Your task to perform on an android device: open app "Mercado Libre" (install if not already installed) and go to login screen Image 0: 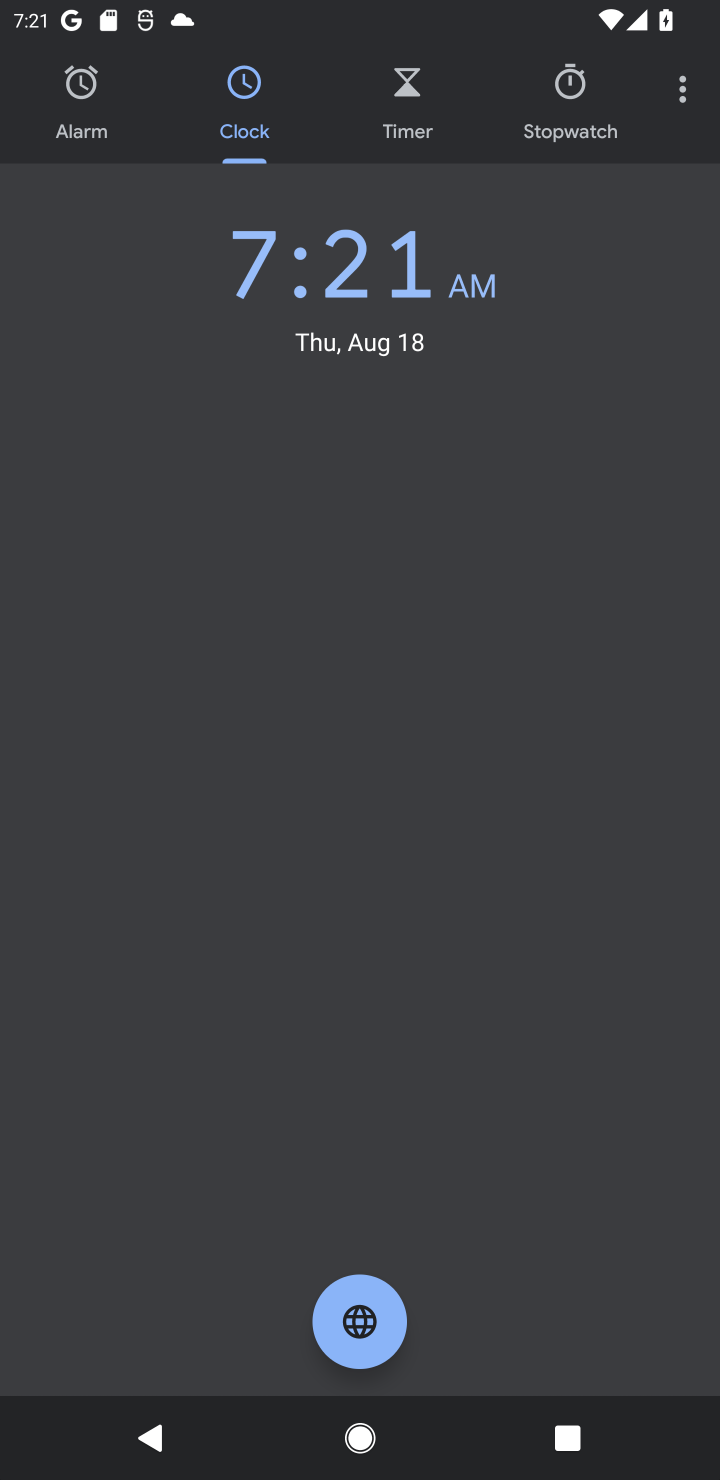
Step 0: press home button
Your task to perform on an android device: open app "Mercado Libre" (install if not already installed) and go to login screen Image 1: 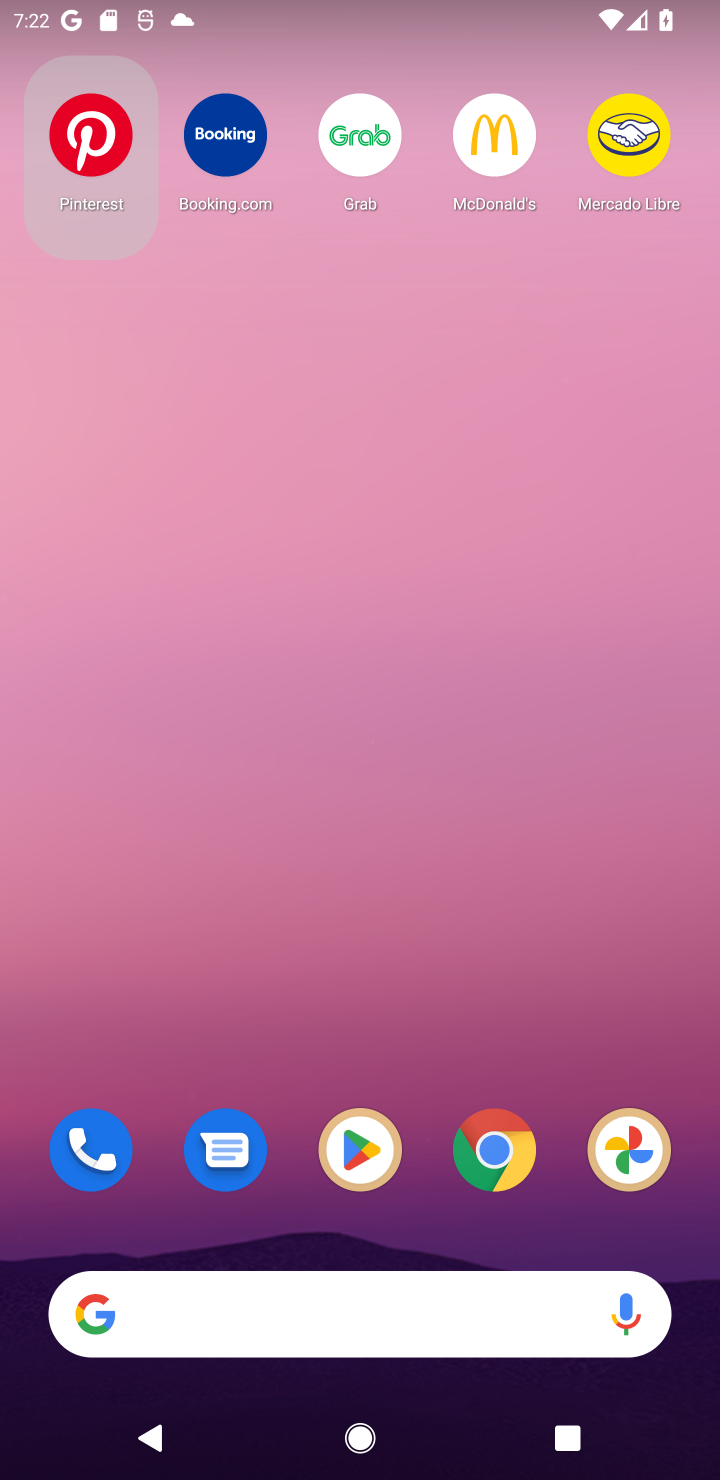
Step 1: press home button
Your task to perform on an android device: open app "Mercado Libre" (install if not already installed) and go to login screen Image 2: 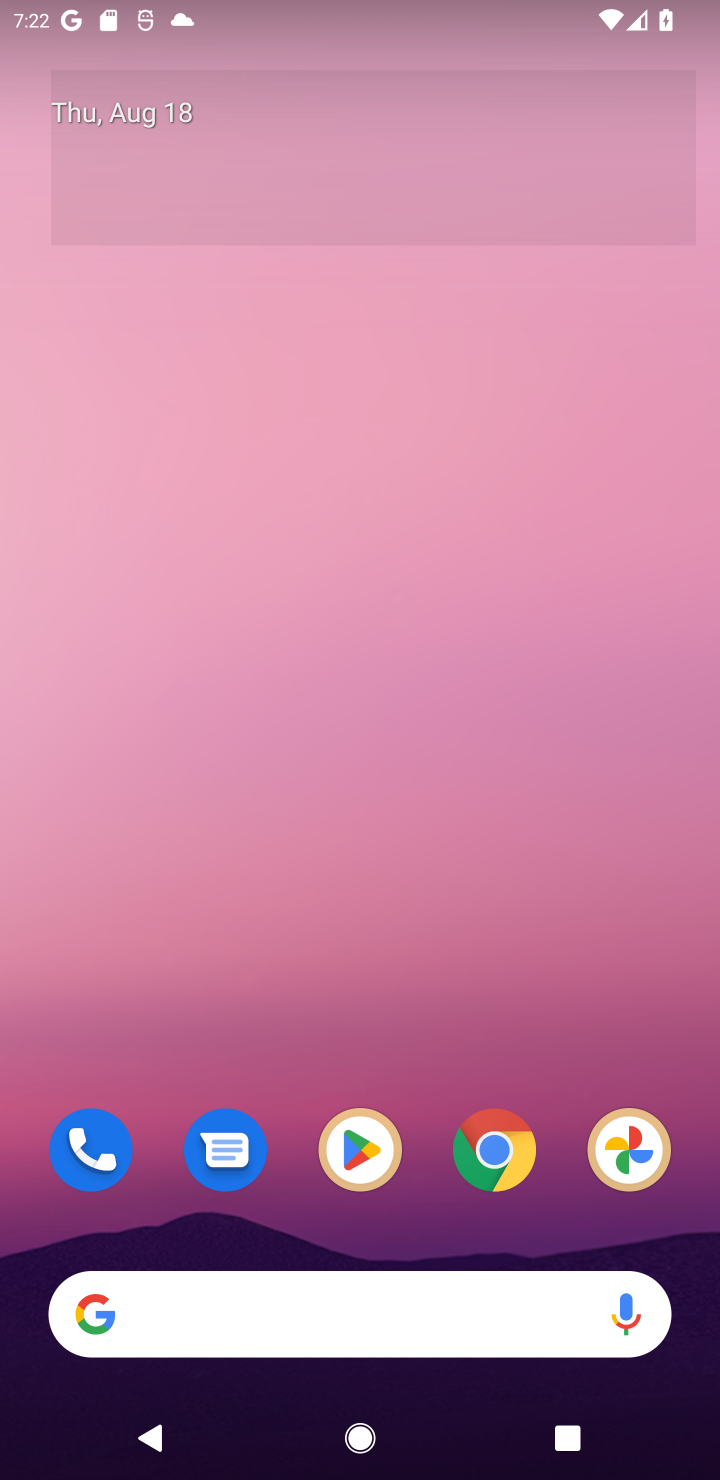
Step 2: click (377, 1138)
Your task to perform on an android device: open app "Mercado Libre" (install if not already installed) and go to login screen Image 3: 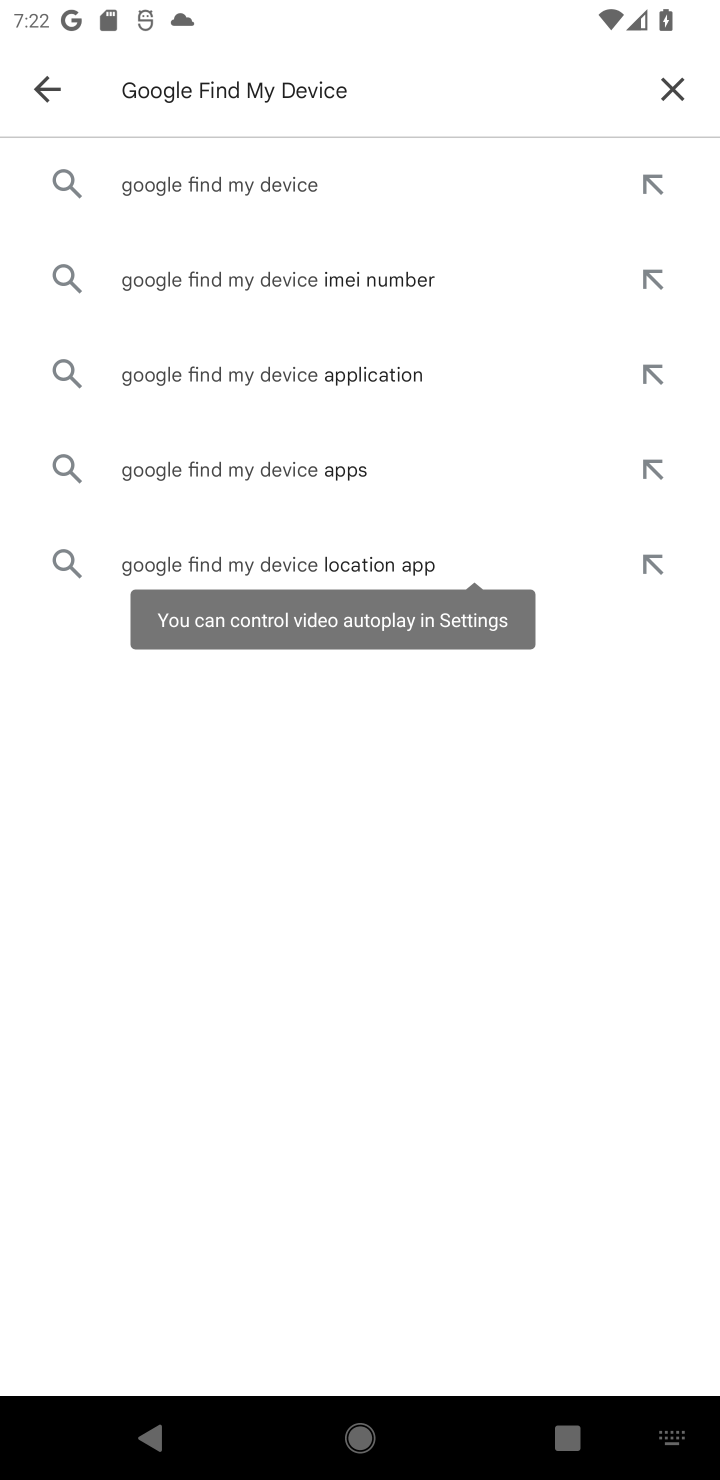
Step 3: click (377, 1138)
Your task to perform on an android device: open app "Mercado Libre" (install if not already installed) and go to login screen Image 4: 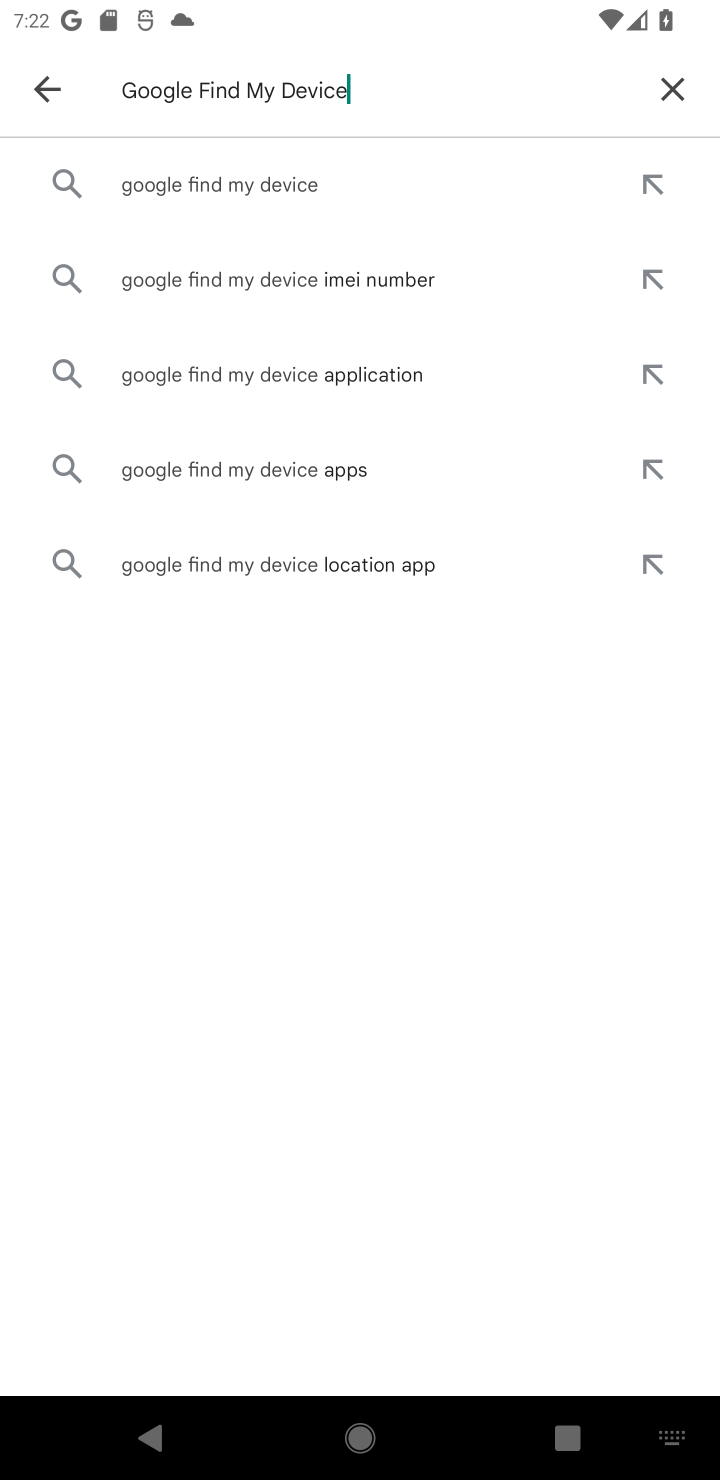
Step 4: click (58, 89)
Your task to perform on an android device: open app "Mercado Libre" (install if not already installed) and go to login screen Image 5: 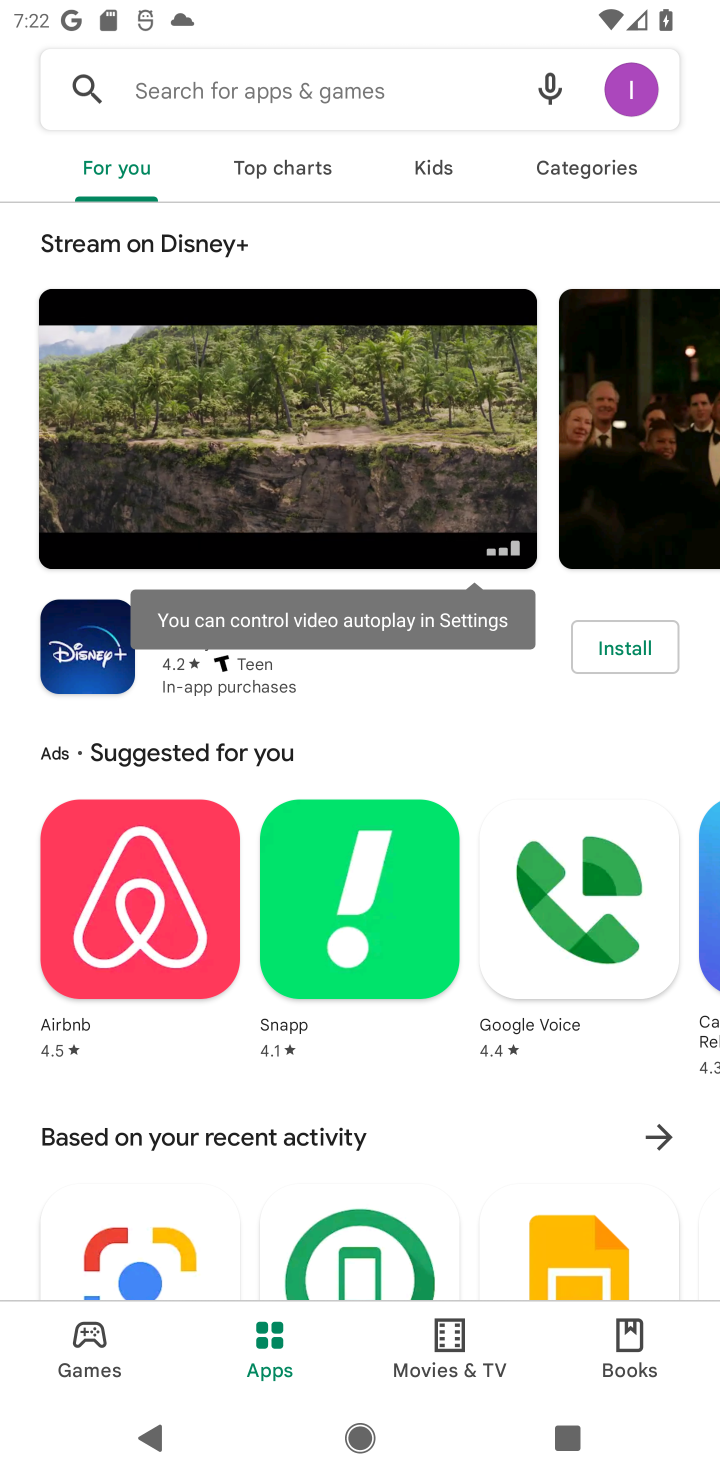
Step 5: click (225, 100)
Your task to perform on an android device: open app "Mercado Libre" (install if not already installed) and go to login screen Image 6: 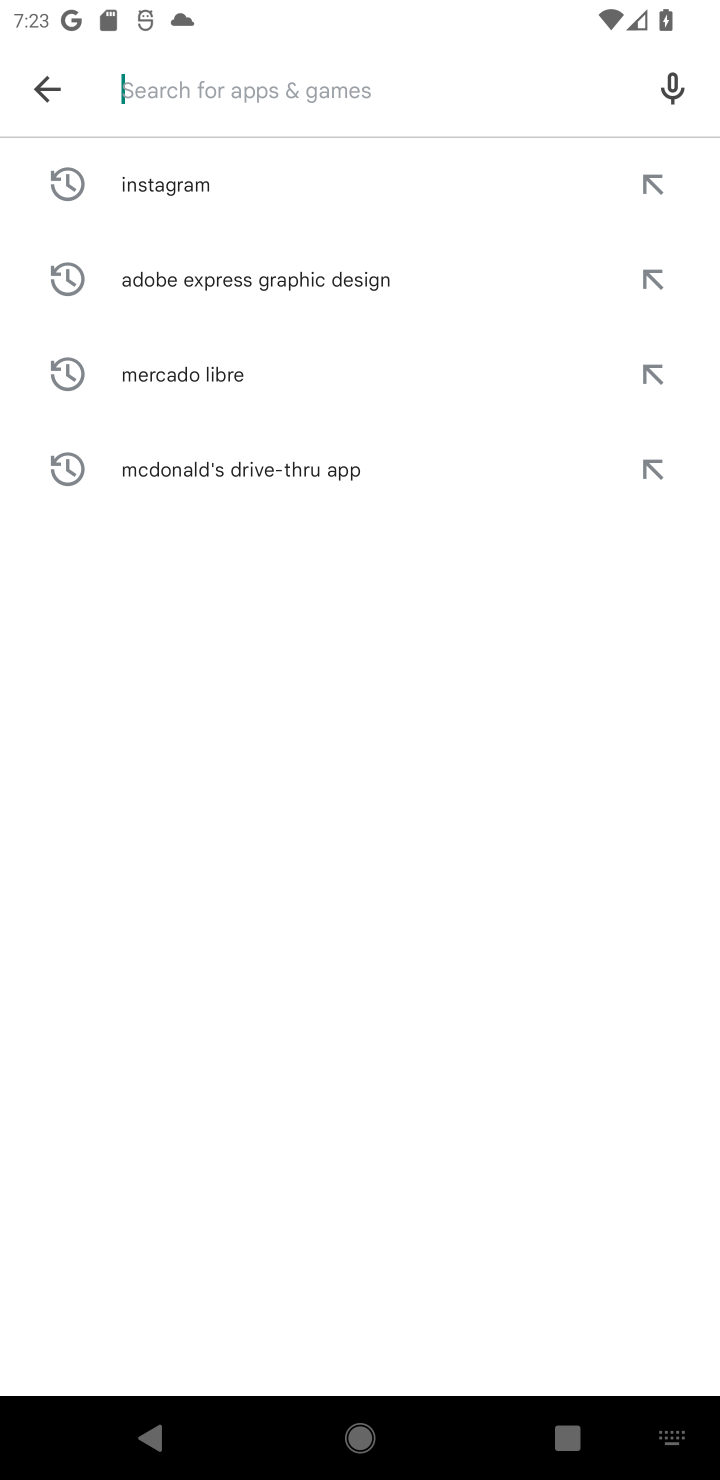
Step 6: type "Mercado"
Your task to perform on an android device: open app "Mercado Libre" (install if not already installed) and go to login screen Image 7: 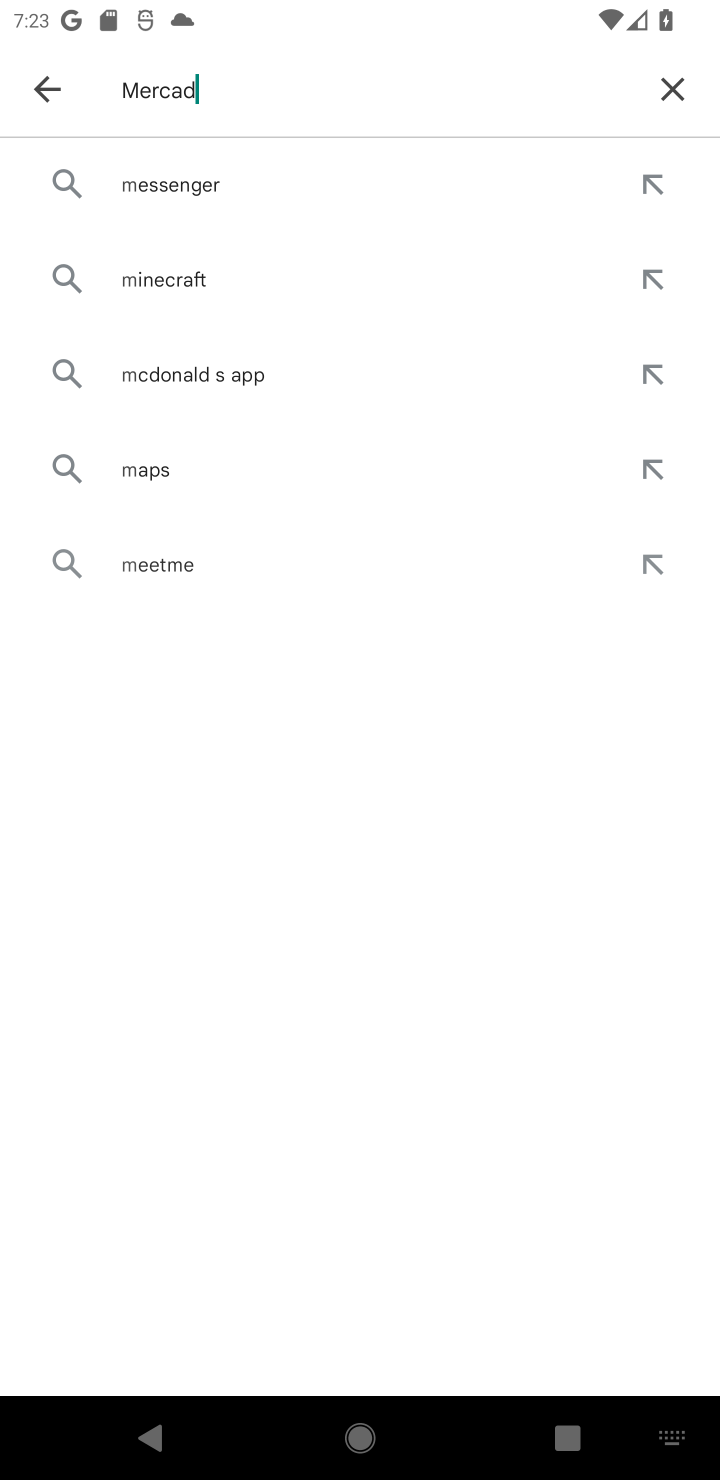
Step 7: type ""
Your task to perform on an android device: open app "Mercado Libre" (install if not already installed) and go to login screen Image 8: 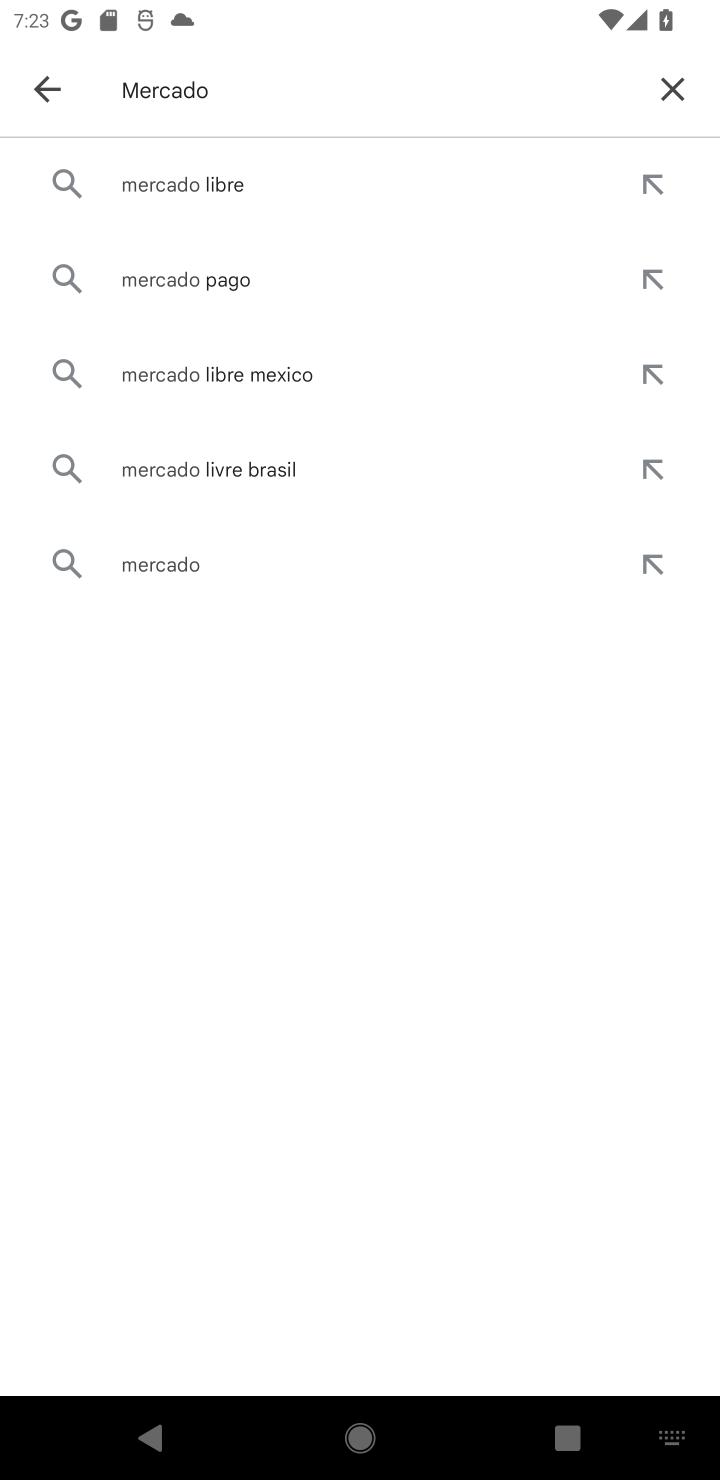
Step 8: click (273, 197)
Your task to perform on an android device: open app "Mercado Libre" (install if not already installed) and go to login screen Image 9: 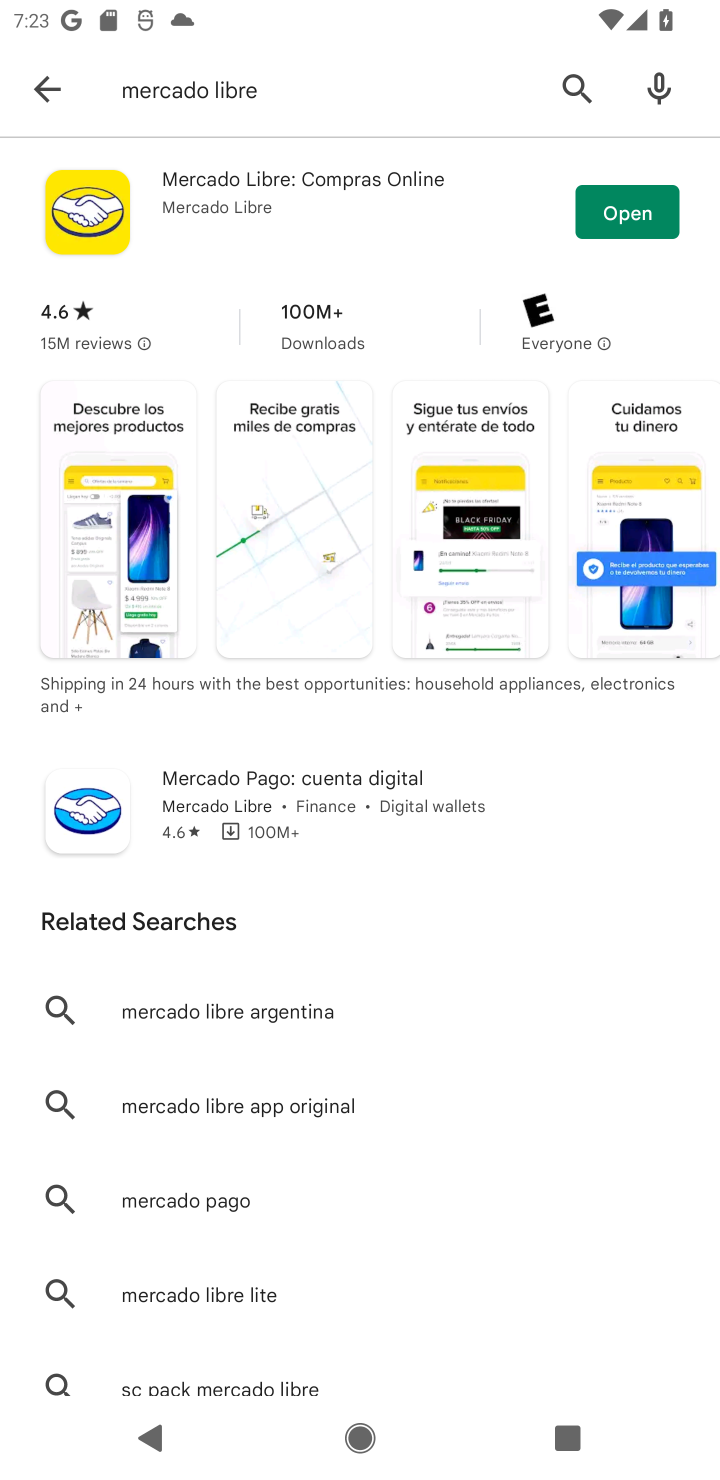
Step 9: click (415, 225)
Your task to perform on an android device: open app "Mercado Libre" (install if not already installed) and go to login screen Image 10: 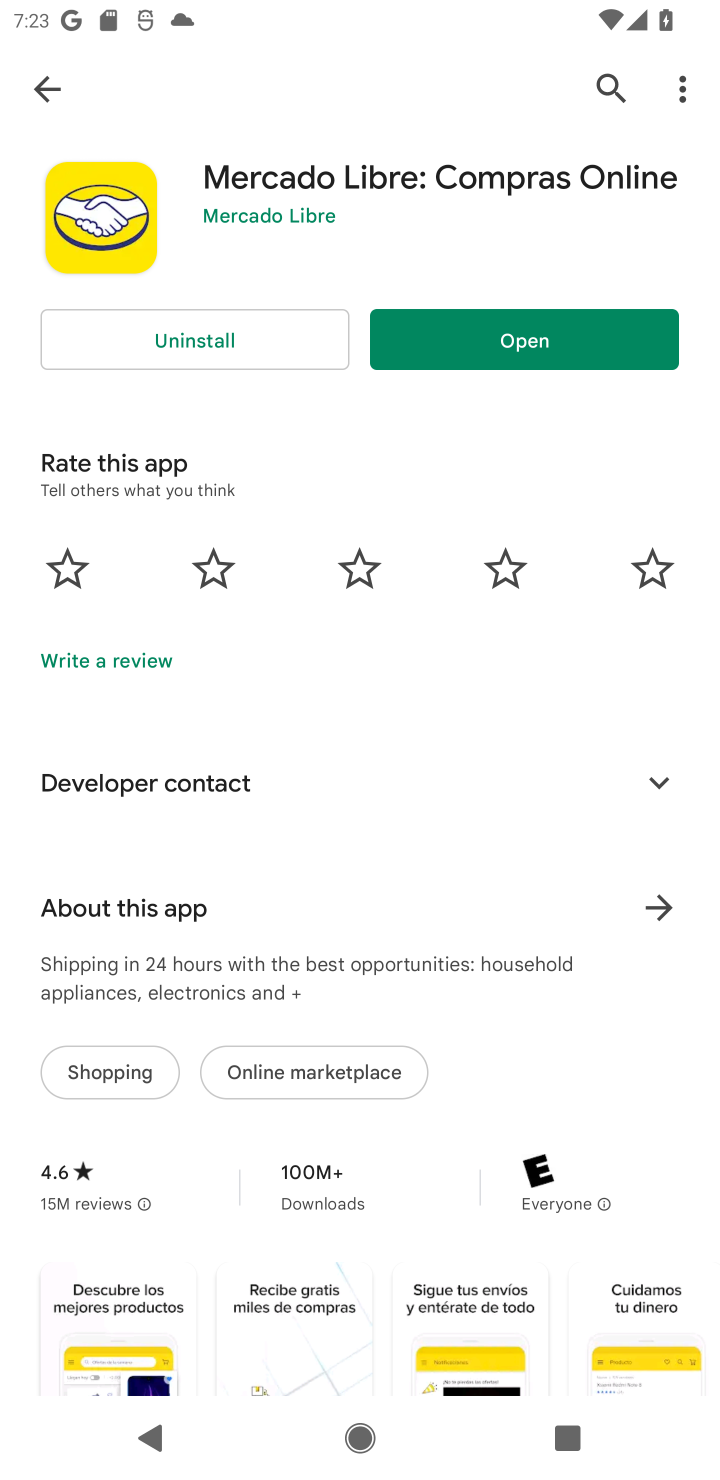
Step 10: click (496, 342)
Your task to perform on an android device: open app "Mercado Libre" (install if not already installed) and go to login screen Image 11: 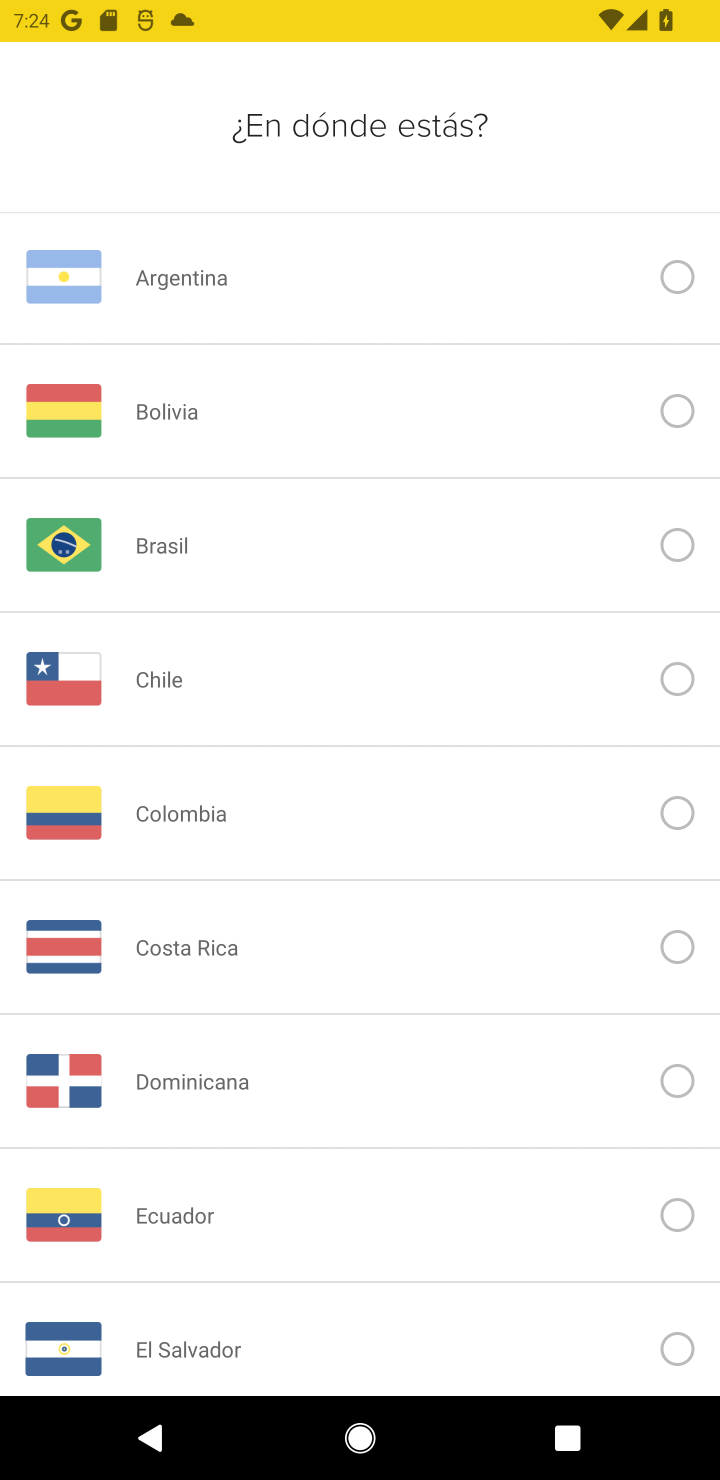
Step 11: task complete